Your task to perform on an android device: Go to CNN.com Image 0: 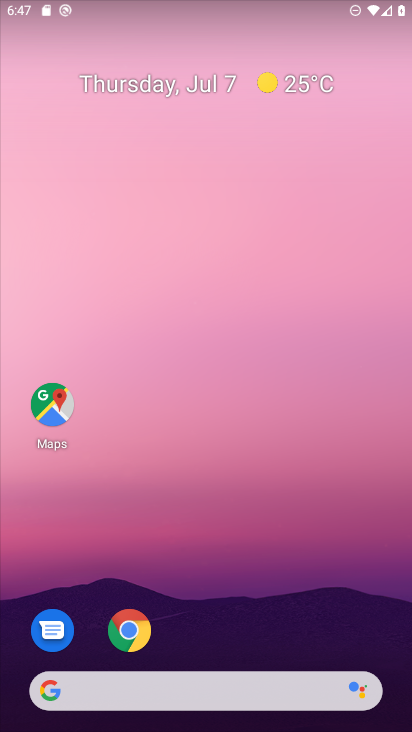
Step 0: click (211, 682)
Your task to perform on an android device: Go to CNN.com Image 1: 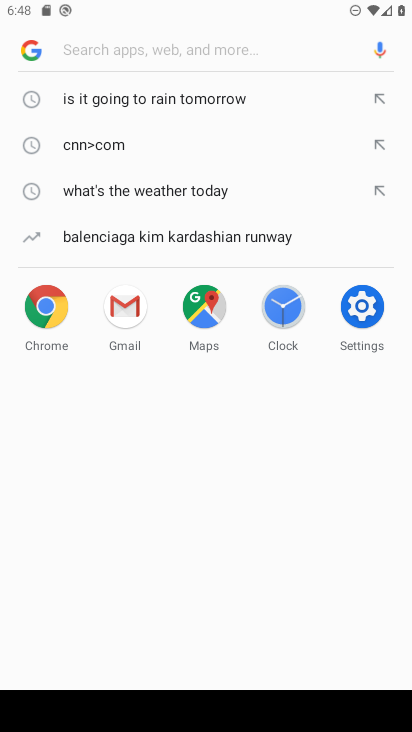
Step 1: type "cnn.com"
Your task to perform on an android device: Go to CNN.com Image 2: 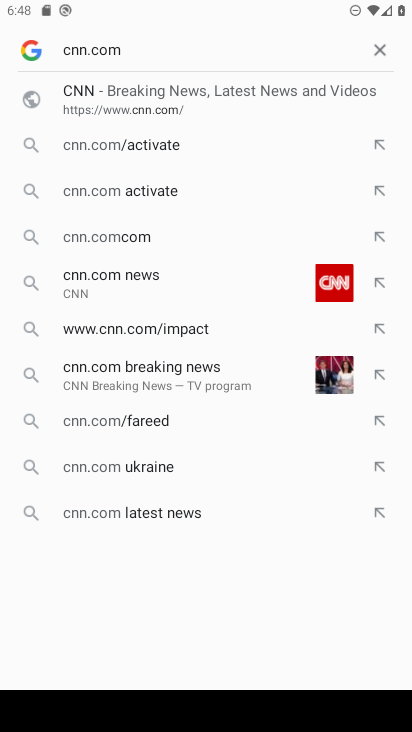
Step 2: click (157, 93)
Your task to perform on an android device: Go to CNN.com Image 3: 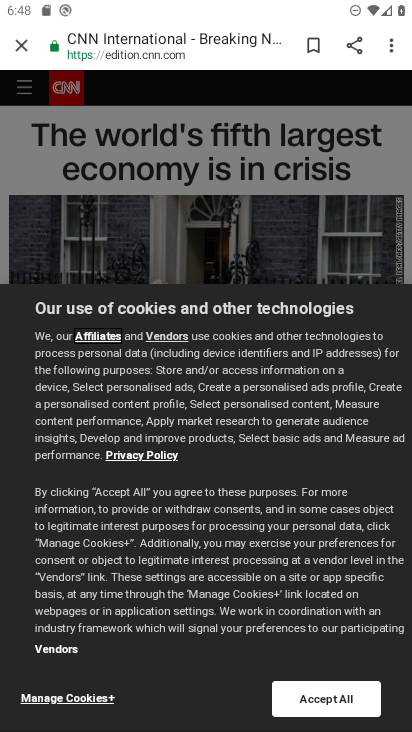
Step 3: task complete